Your task to perform on an android device: toggle pop-ups in chrome Image 0: 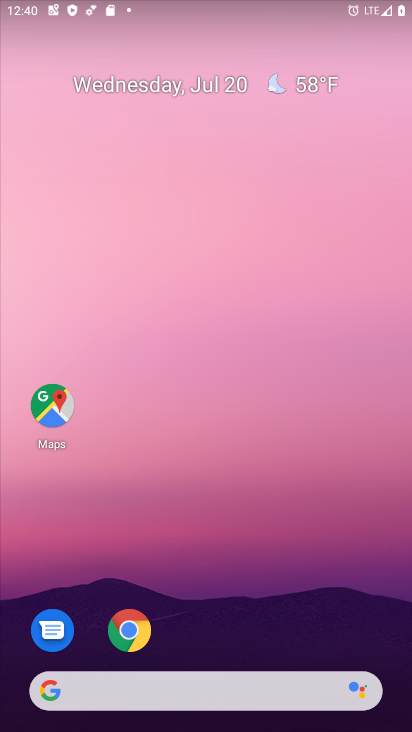
Step 0: drag from (262, 625) to (290, 112)
Your task to perform on an android device: toggle pop-ups in chrome Image 1: 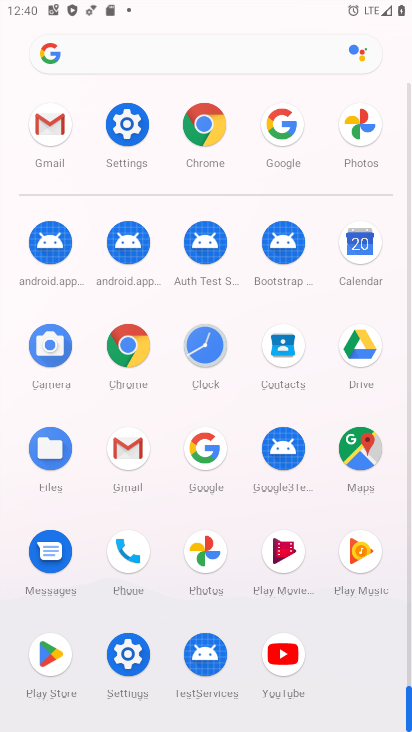
Step 1: click (131, 346)
Your task to perform on an android device: toggle pop-ups in chrome Image 2: 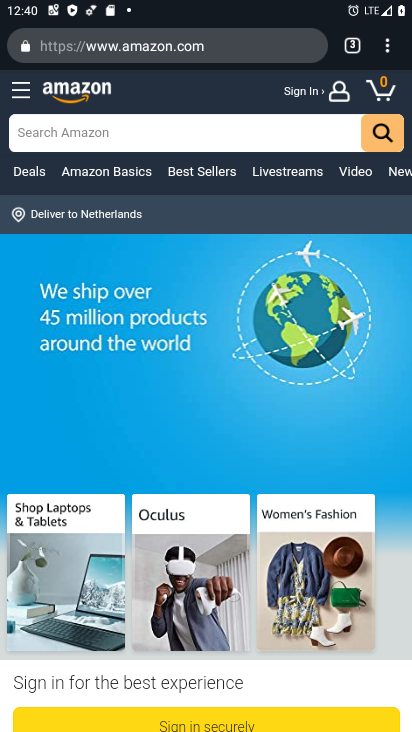
Step 2: click (386, 43)
Your task to perform on an android device: toggle pop-ups in chrome Image 3: 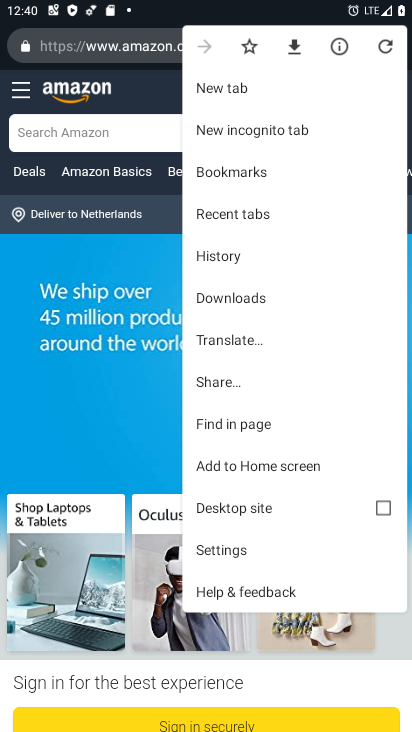
Step 3: click (258, 552)
Your task to perform on an android device: toggle pop-ups in chrome Image 4: 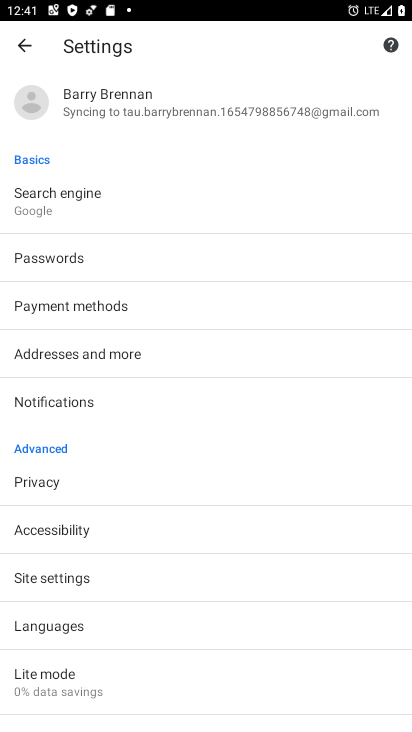
Step 4: drag from (154, 552) to (196, 294)
Your task to perform on an android device: toggle pop-ups in chrome Image 5: 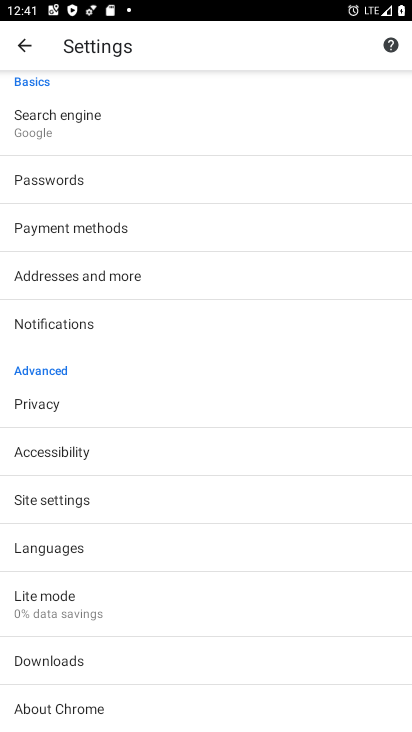
Step 5: click (82, 514)
Your task to perform on an android device: toggle pop-ups in chrome Image 6: 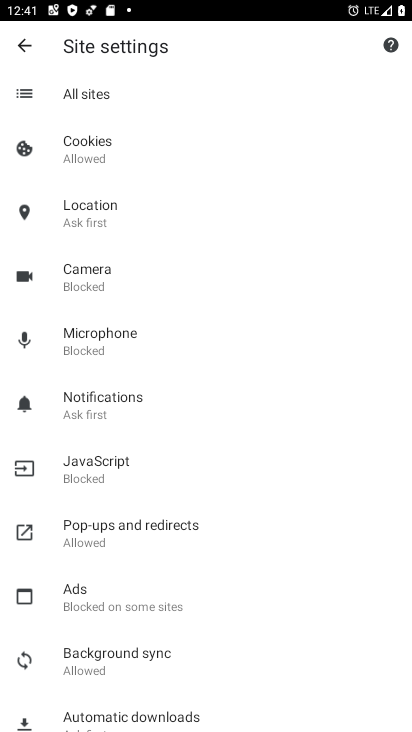
Step 6: click (132, 531)
Your task to perform on an android device: toggle pop-ups in chrome Image 7: 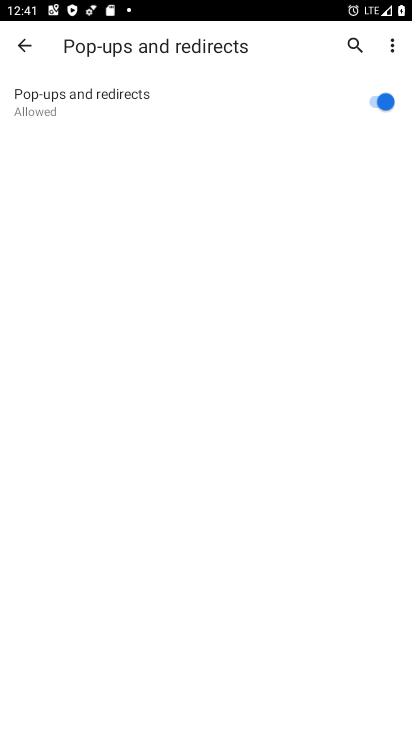
Step 7: click (374, 98)
Your task to perform on an android device: toggle pop-ups in chrome Image 8: 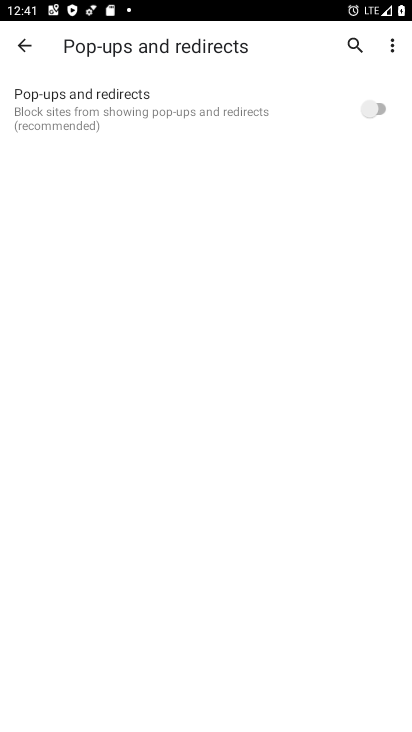
Step 8: task complete